Your task to perform on an android device: check battery use Image 0: 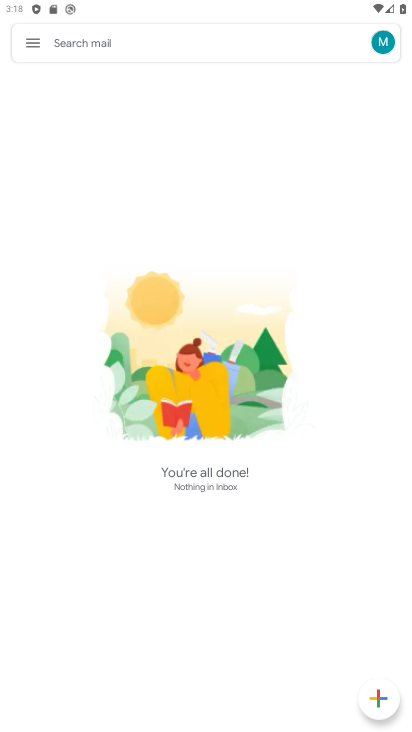
Step 0: press home button
Your task to perform on an android device: check battery use Image 1: 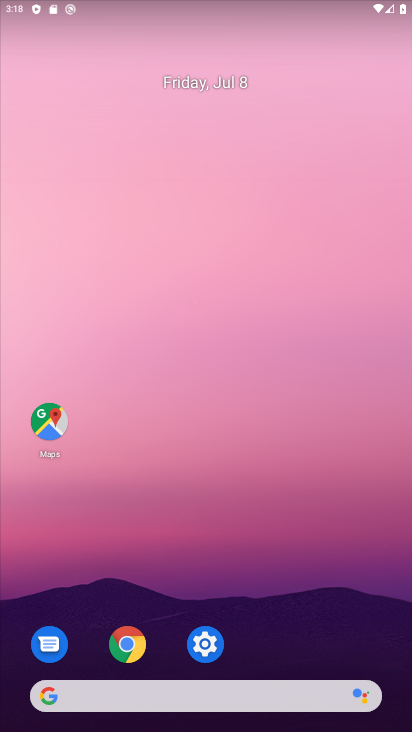
Step 1: drag from (26, 720) to (132, 81)
Your task to perform on an android device: check battery use Image 2: 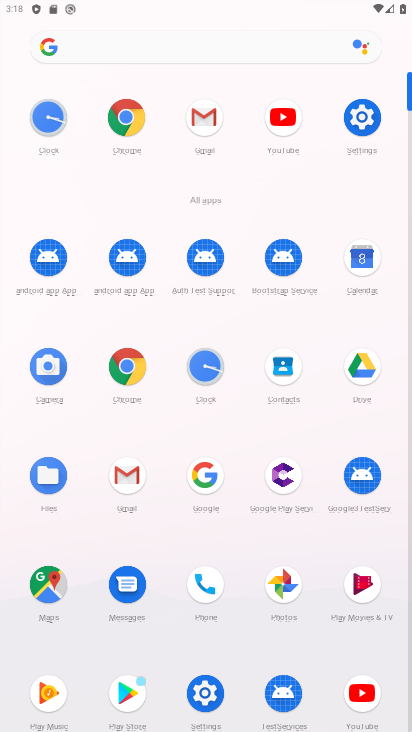
Step 2: click (191, 686)
Your task to perform on an android device: check battery use Image 3: 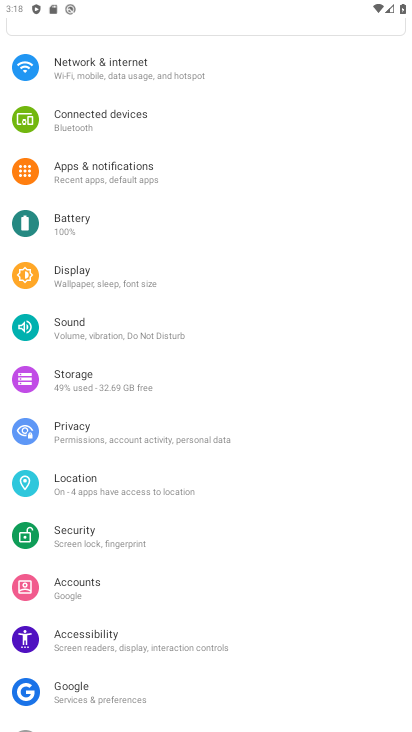
Step 3: click (70, 224)
Your task to perform on an android device: check battery use Image 4: 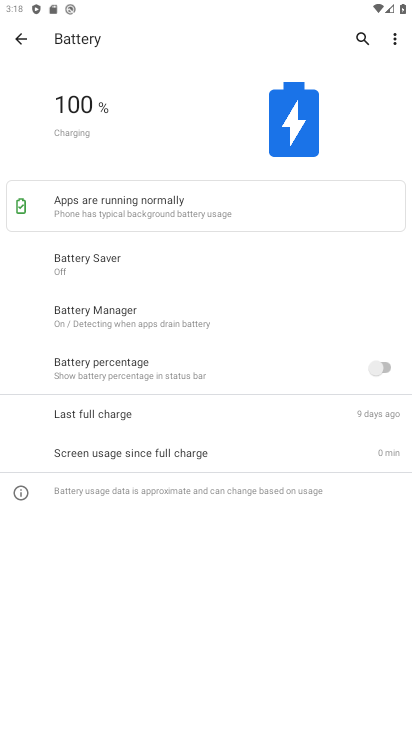
Step 4: task complete